Your task to perform on an android device: turn off location Image 0: 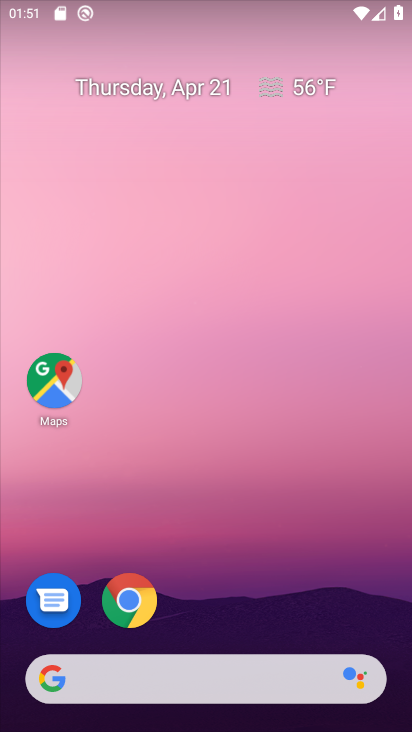
Step 0: drag from (289, 584) to (322, 135)
Your task to perform on an android device: turn off location Image 1: 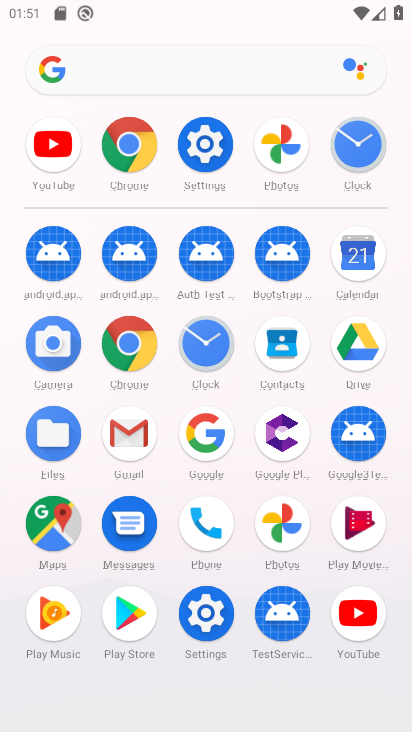
Step 1: click (208, 149)
Your task to perform on an android device: turn off location Image 2: 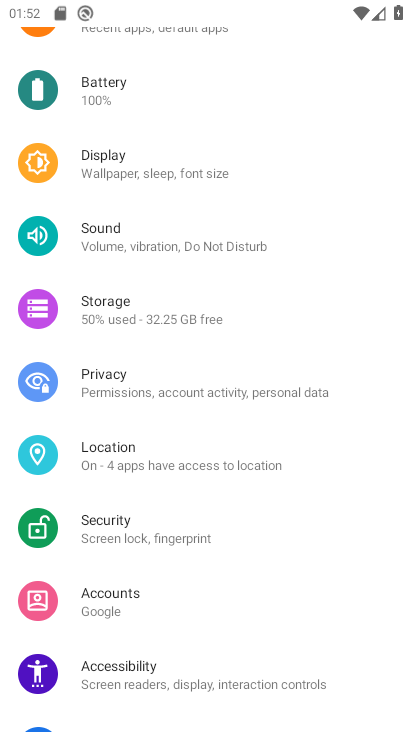
Step 2: click (190, 453)
Your task to perform on an android device: turn off location Image 3: 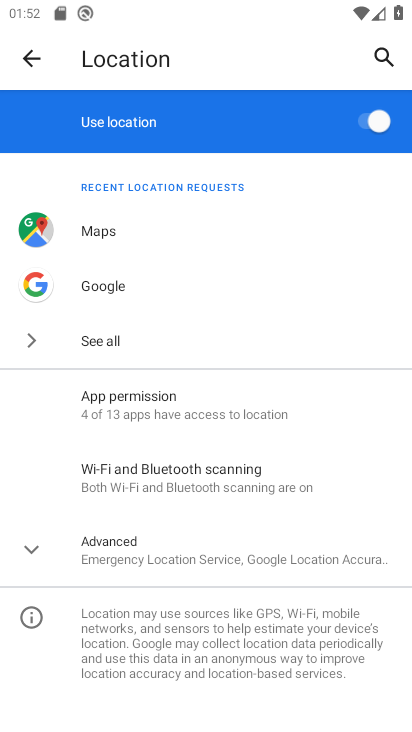
Step 3: click (364, 121)
Your task to perform on an android device: turn off location Image 4: 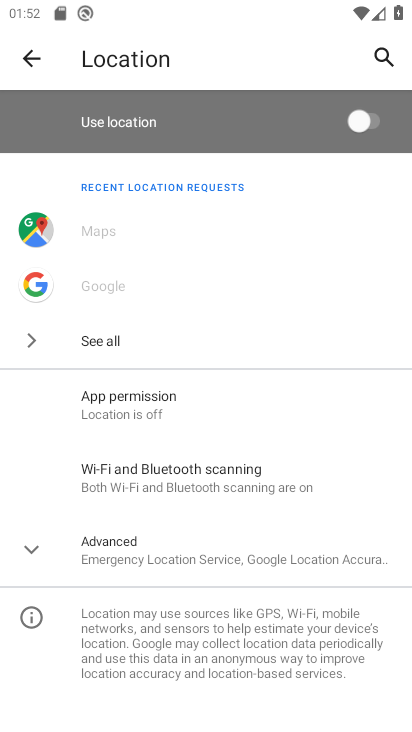
Step 4: task complete